Your task to perform on an android device: Search for "macbook pro 15 inch" on ebay.com, select the first entry, and add it to the cart. Image 0: 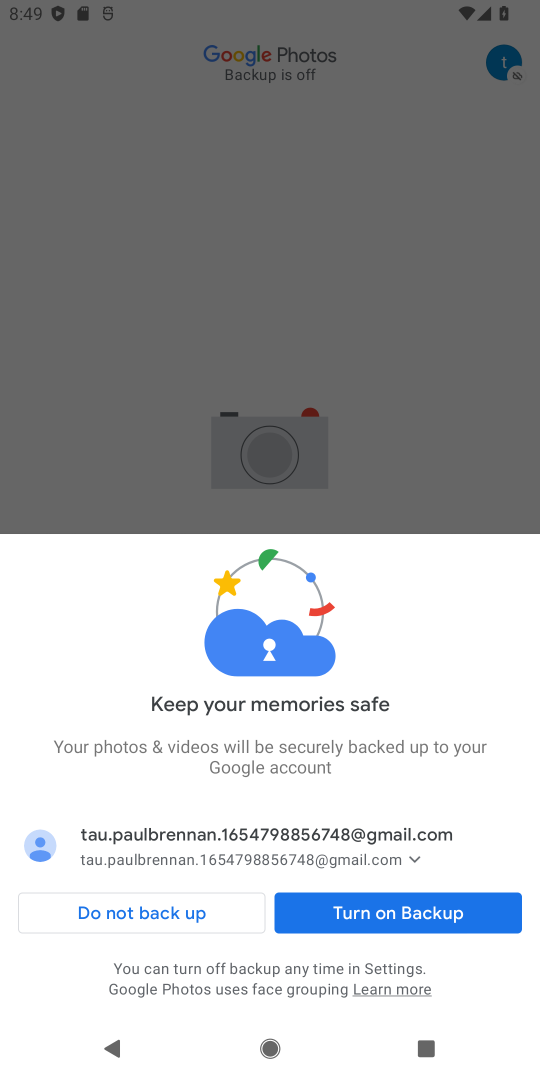
Step 0: click (178, 911)
Your task to perform on an android device: Search for "macbook pro 15 inch" on ebay.com, select the first entry, and add it to the cart. Image 1: 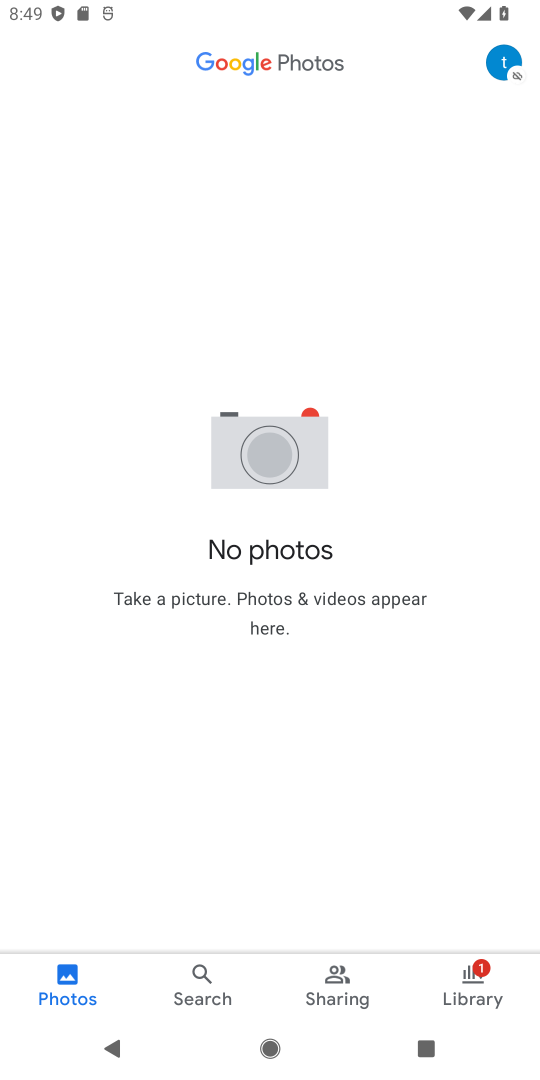
Step 1: press home button
Your task to perform on an android device: Search for "macbook pro 15 inch" on ebay.com, select the first entry, and add it to the cart. Image 2: 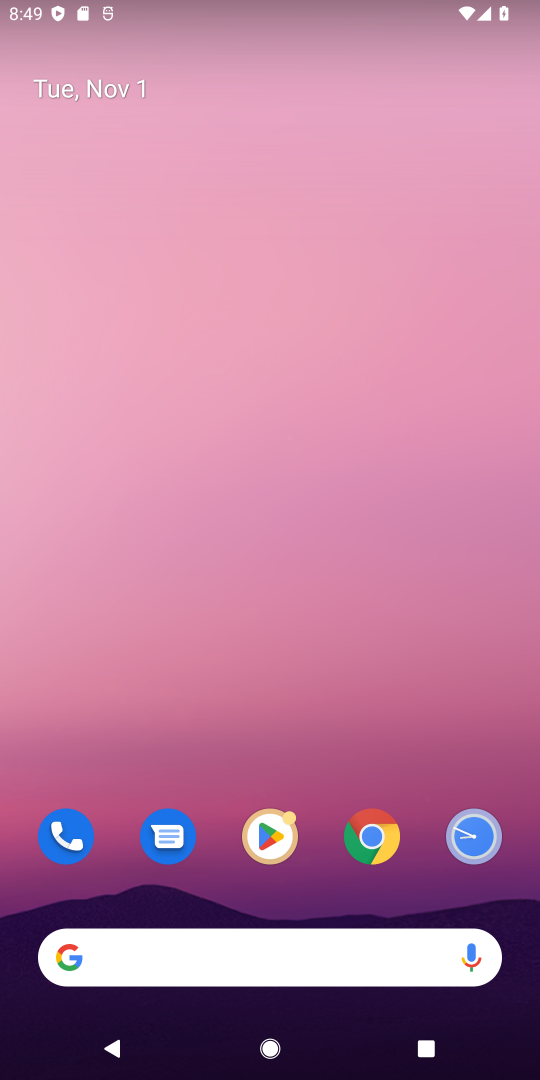
Step 2: click (371, 847)
Your task to perform on an android device: Search for "macbook pro 15 inch" on ebay.com, select the first entry, and add it to the cart. Image 3: 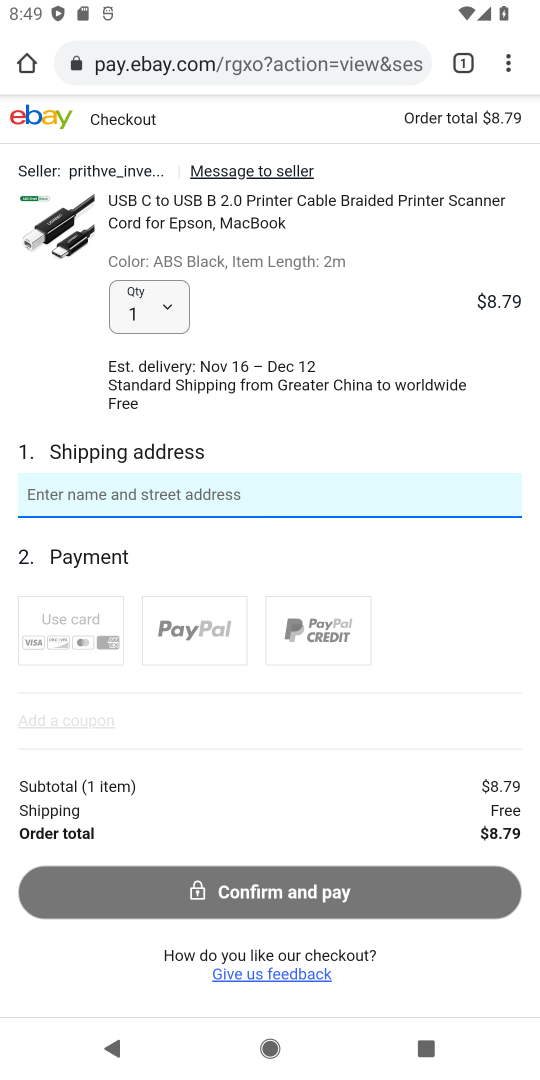
Step 3: click (189, 63)
Your task to perform on an android device: Search for "macbook pro 15 inch" on ebay.com, select the first entry, and add it to the cart. Image 4: 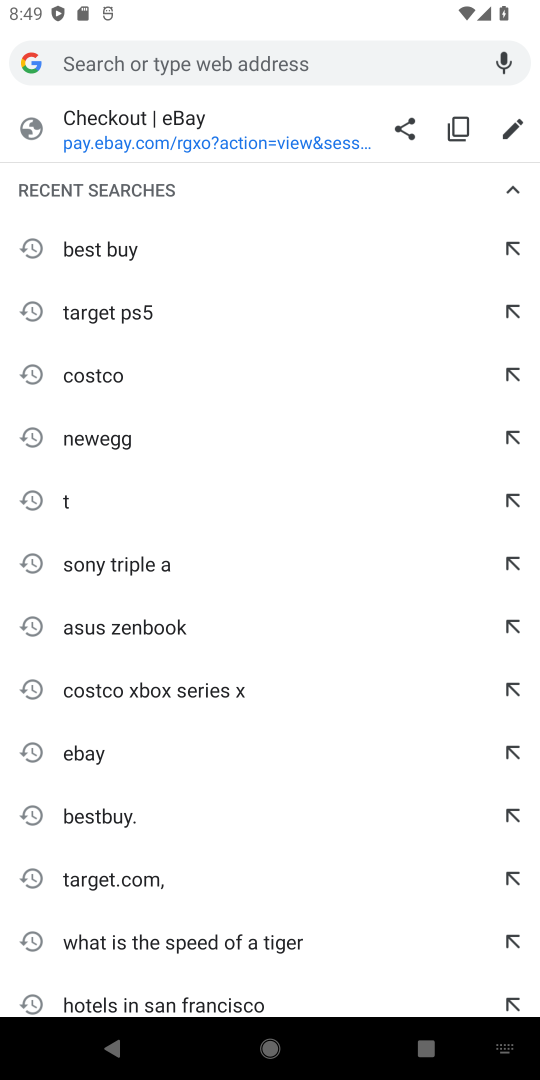
Step 4: type "ebay.com"
Your task to perform on an android device: Search for "macbook pro 15 inch" on ebay.com, select the first entry, and add it to the cart. Image 5: 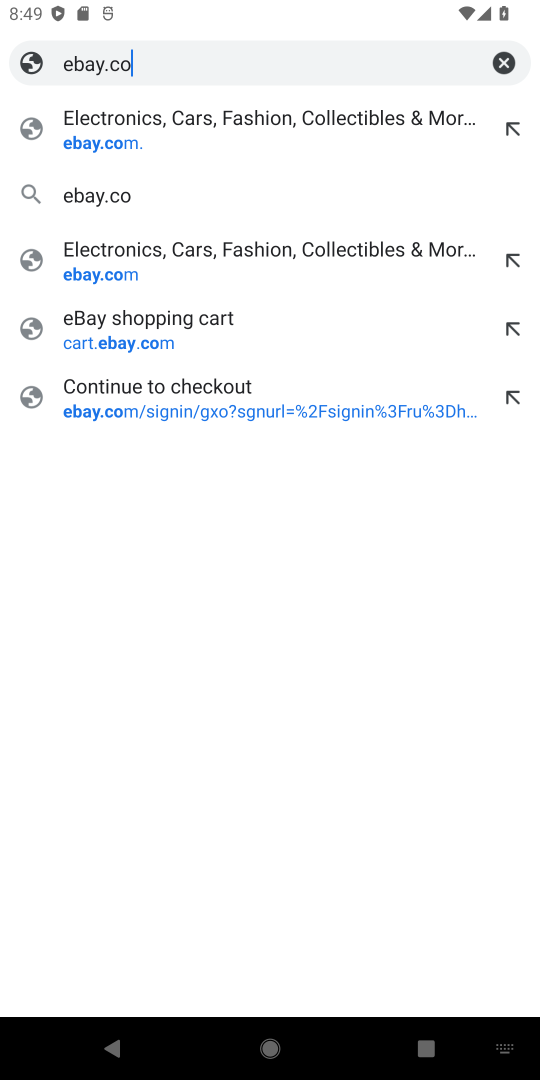
Step 5: type ""
Your task to perform on an android device: Search for "macbook pro 15 inch" on ebay.com, select the first entry, and add it to the cart. Image 6: 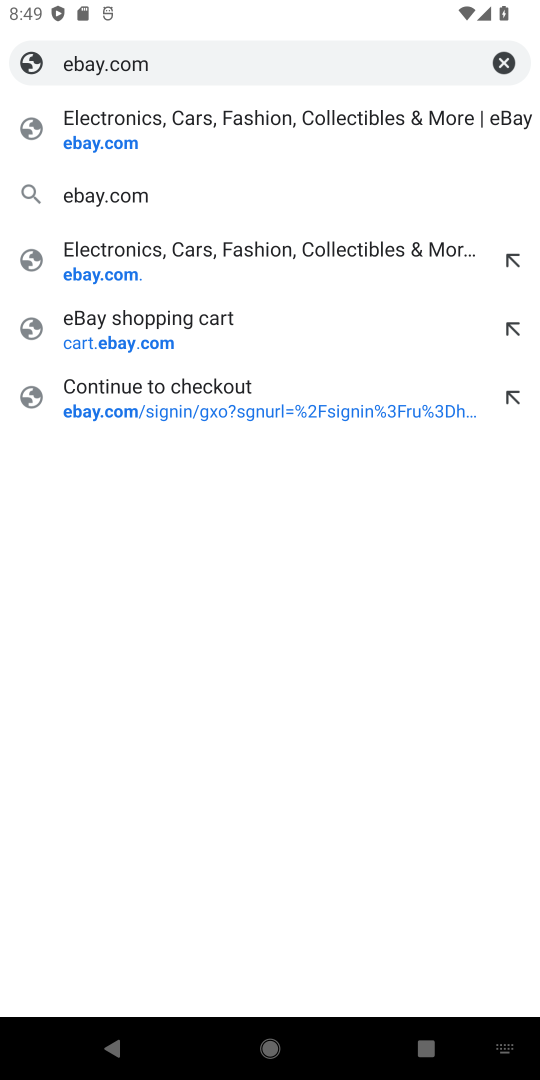
Step 6: click (266, 125)
Your task to perform on an android device: Search for "macbook pro 15 inch" on ebay.com, select the first entry, and add it to the cart. Image 7: 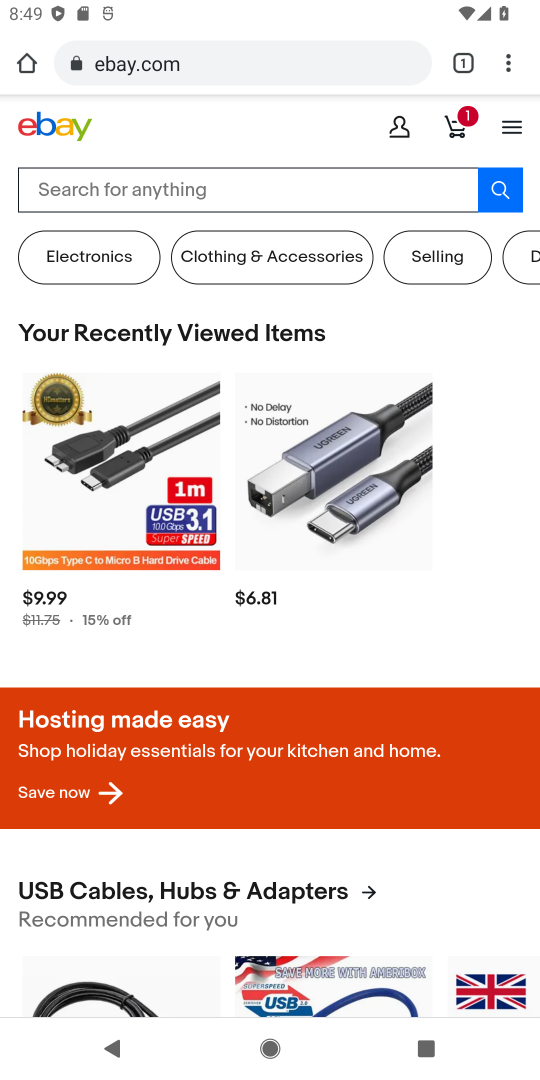
Step 7: click (241, 209)
Your task to perform on an android device: Search for "macbook pro 15 inch" on ebay.com, select the first entry, and add it to the cart. Image 8: 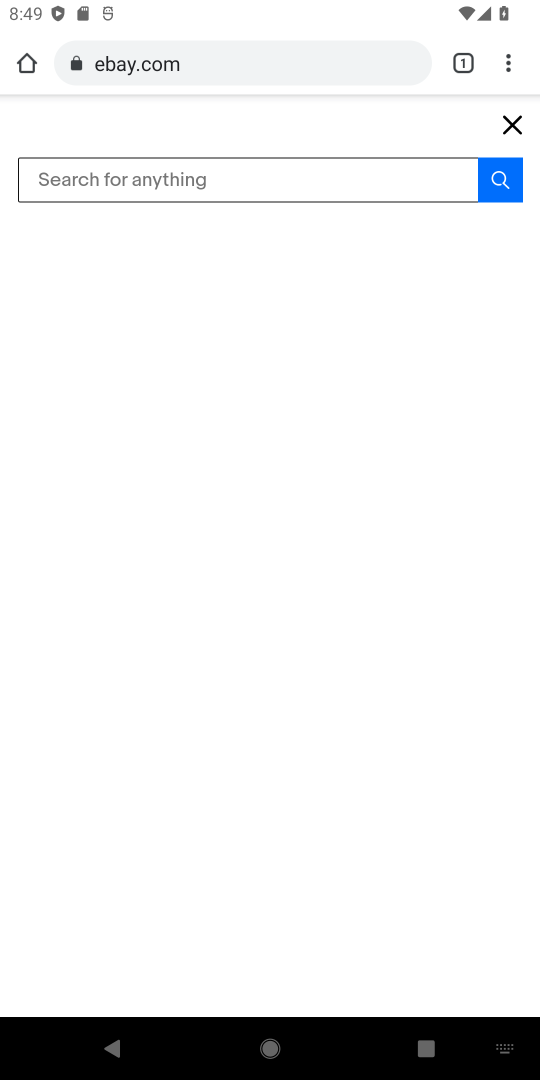
Step 8: type "macbook pro 15 inch"
Your task to perform on an android device: Search for "macbook pro 15 inch" on ebay.com, select the first entry, and add it to the cart. Image 9: 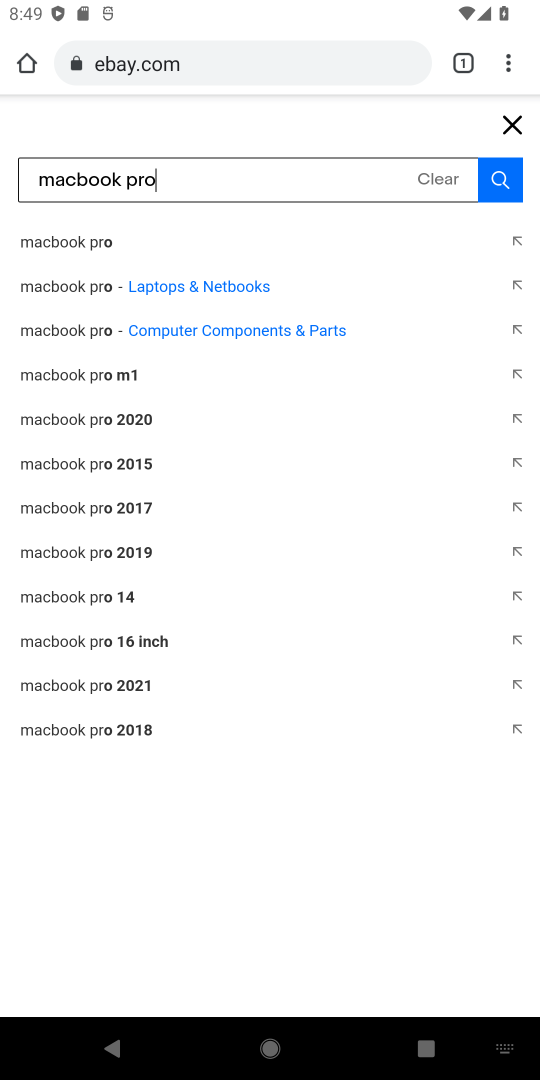
Step 9: type ""
Your task to perform on an android device: Search for "macbook pro 15 inch" on ebay.com, select the first entry, and add it to the cart. Image 10: 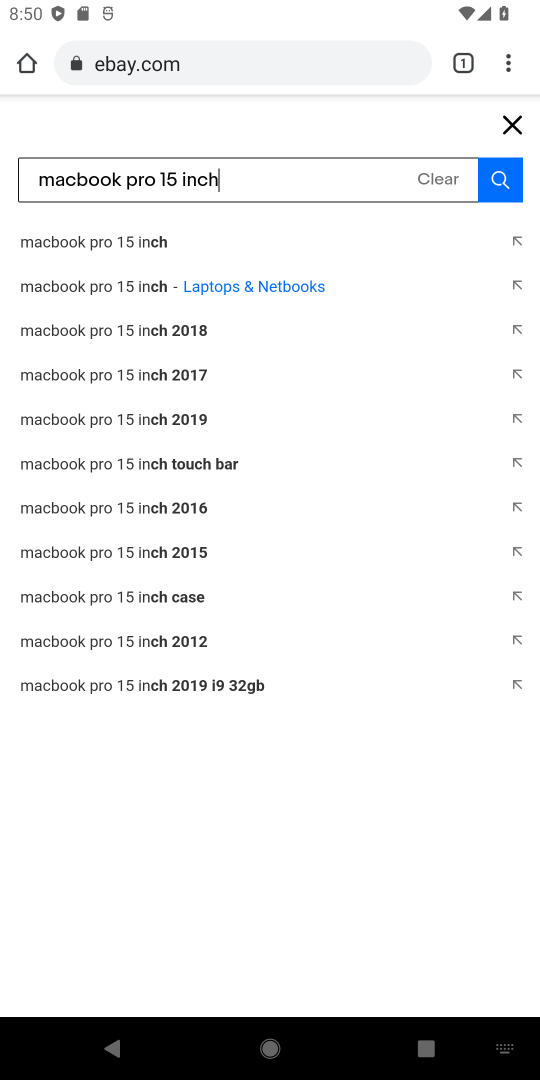
Step 10: click (173, 236)
Your task to perform on an android device: Search for "macbook pro 15 inch" on ebay.com, select the first entry, and add it to the cart. Image 11: 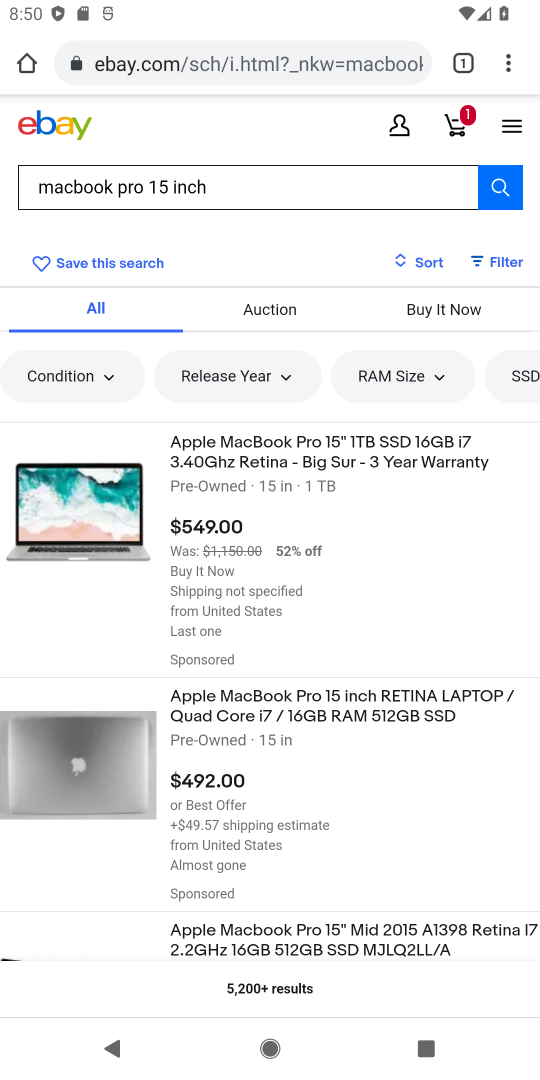
Step 11: click (230, 494)
Your task to perform on an android device: Search for "macbook pro 15 inch" on ebay.com, select the first entry, and add it to the cart. Image 12: 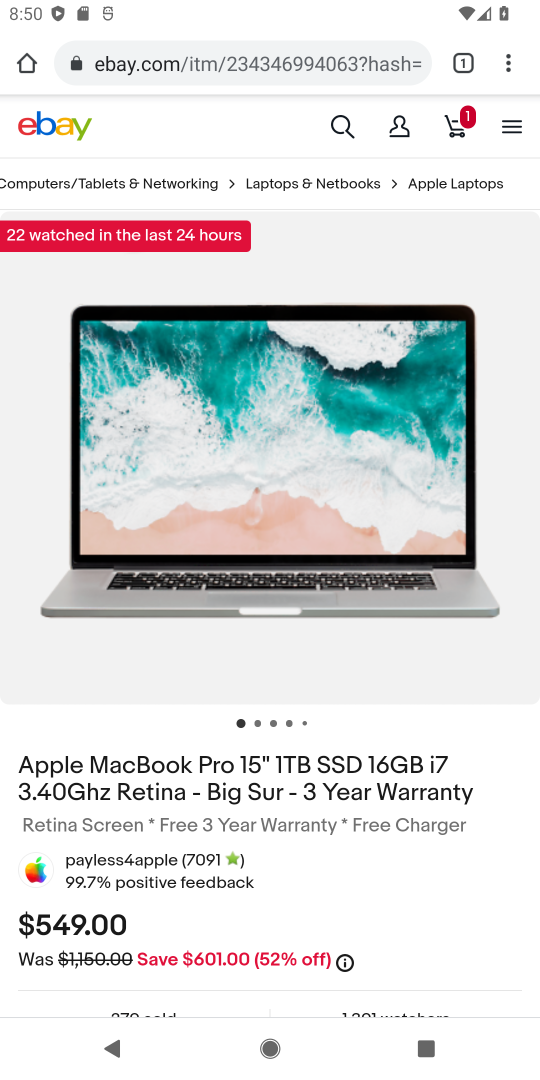
Step 12: drag from (218, 807) to (295, 445)
Your task to perform on an android device: Search for "macbook pro 15 inch" on ebay.com, select the first entry, and add it to the cart. Image 13: 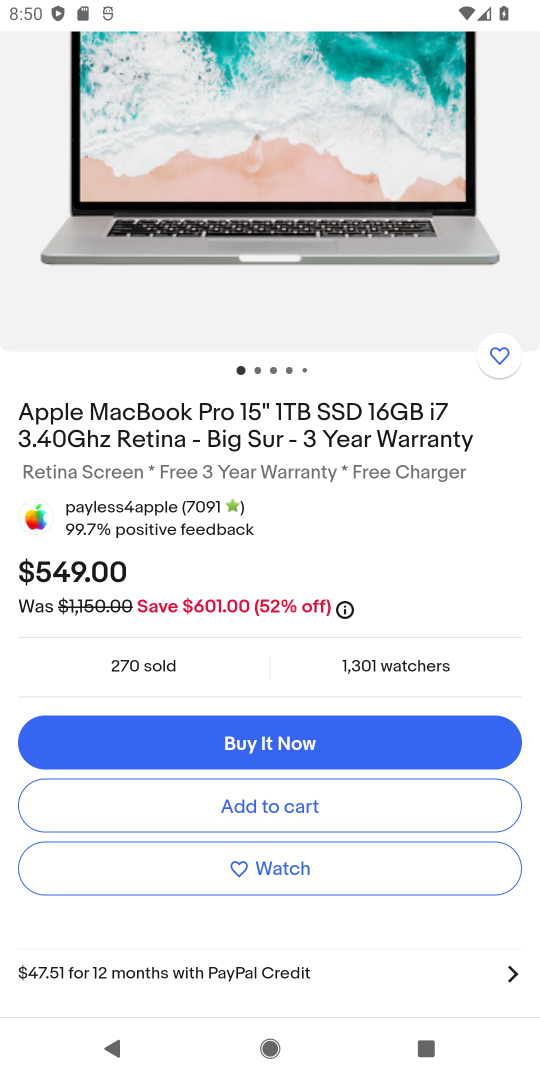
Step 13: click (276, 797)
Your task to perform on an android device: Search for "macbook pro 15 inch" on ebay.com, select the first entry, and add it to the cart. Image 14: 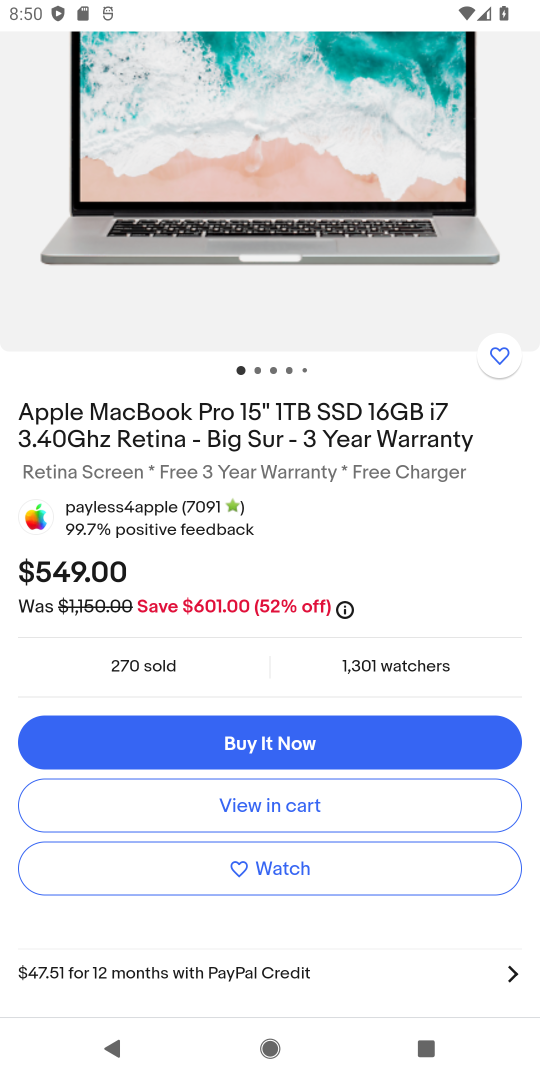
Step 14: click (276, 797)
Your task to perform on an android device: Search for "macbook pro 15 inch" on ebay.com, select the first entry, and add it to the cart. Image 15: 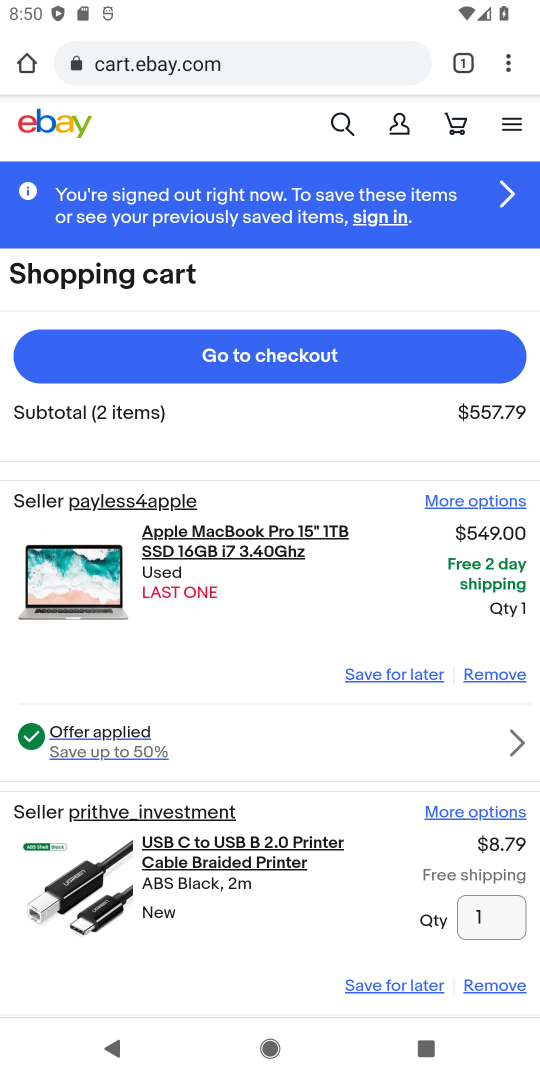
Step 15: drag from (290, 731) to (334, 440)
Your task to perform on an android device: Search for "macbook pro 15 inch" on ebay.com, select the first entry, and add it to the cart. Image 16: 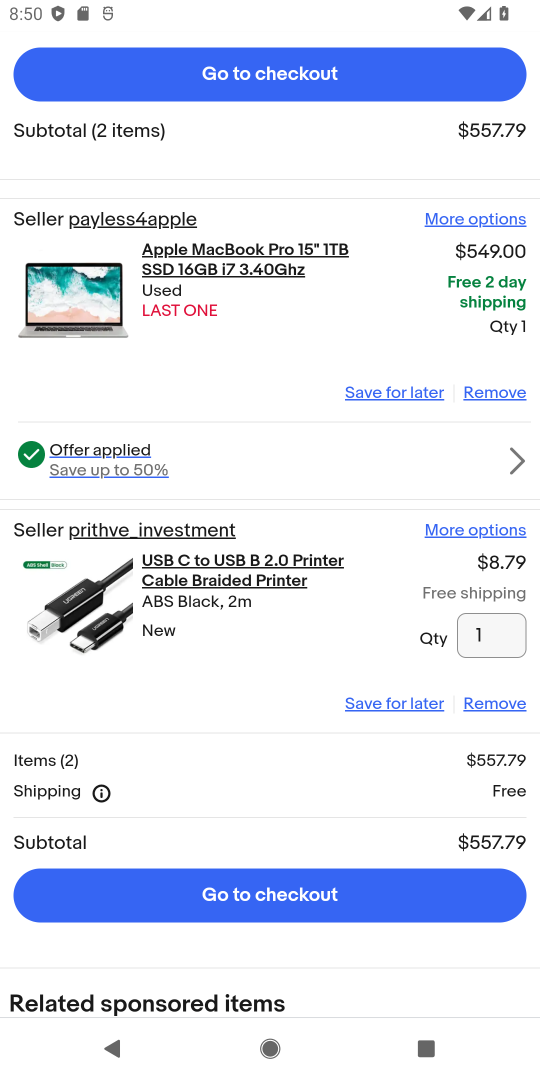
Step 16: click (505, 700)
Your task to perform on an android device: Search for "macbook pro 15 inch" on ebay.com, select the first entry, and add it to the cart. Image 17: 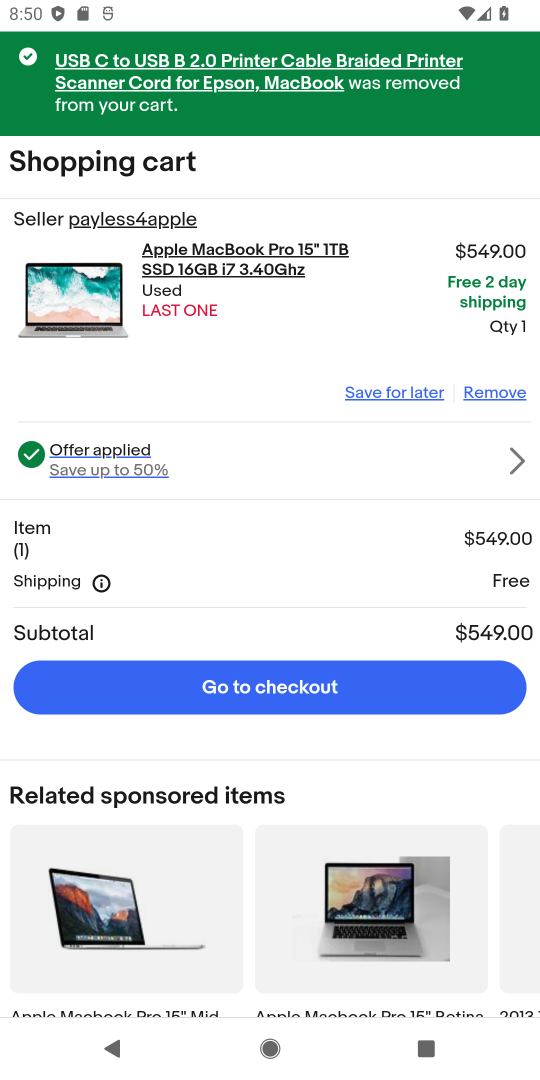
Step 17: click (453, 682)
Your task to perform on an android device: Search for "macbook pro 15 inch" on ebay.com, select the first entry, and add it to the cart. Image 18: 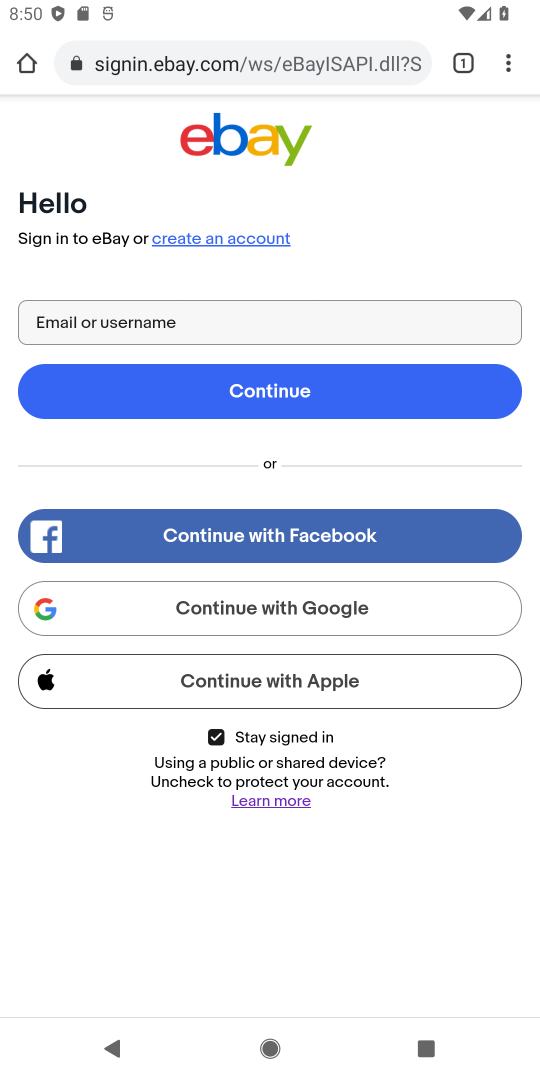
Step 18: click (453, 682)
Your task to perform on an android device: Search for "macbook pro 15 inch" on ebay.com, select the first entry, and add it to the cart. Image 19: 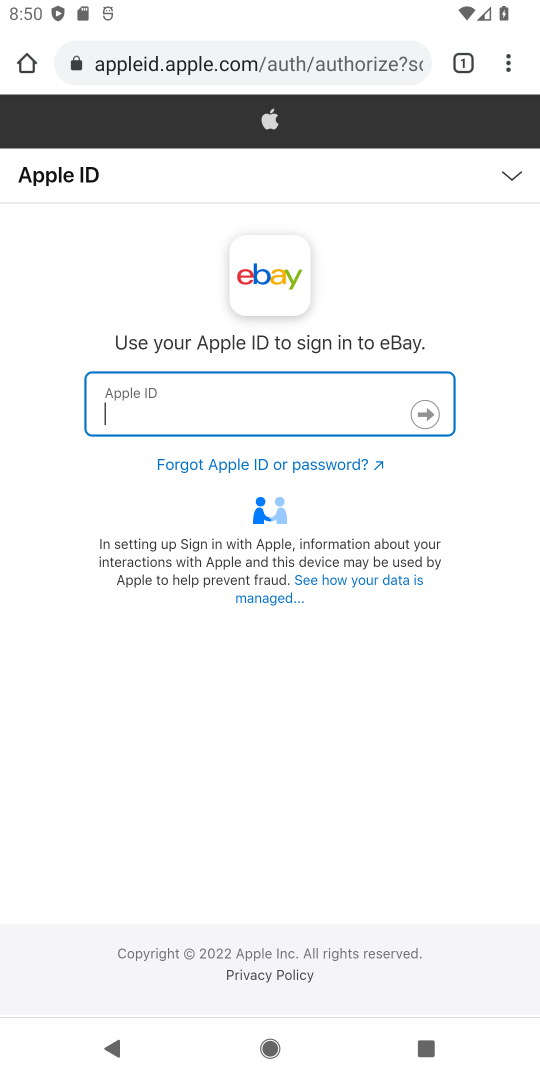
Step 19: click (525, 186)
Your task to perform on an android device: Search for "macbook pro 15 inch" on ebay.com, select the first entry, and add it to the cart. Image 20: 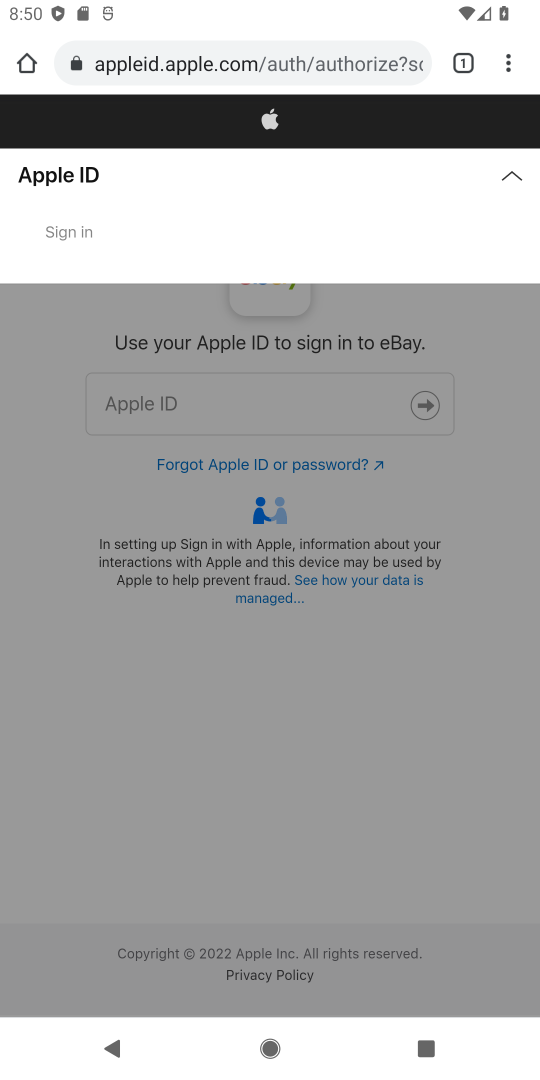
Step 20: click (262, 395)
Your task to perform on an android device: Search for "macbook pro 15 inch" on ebay.com, select the first entry, and add it to the cart. Image 21: 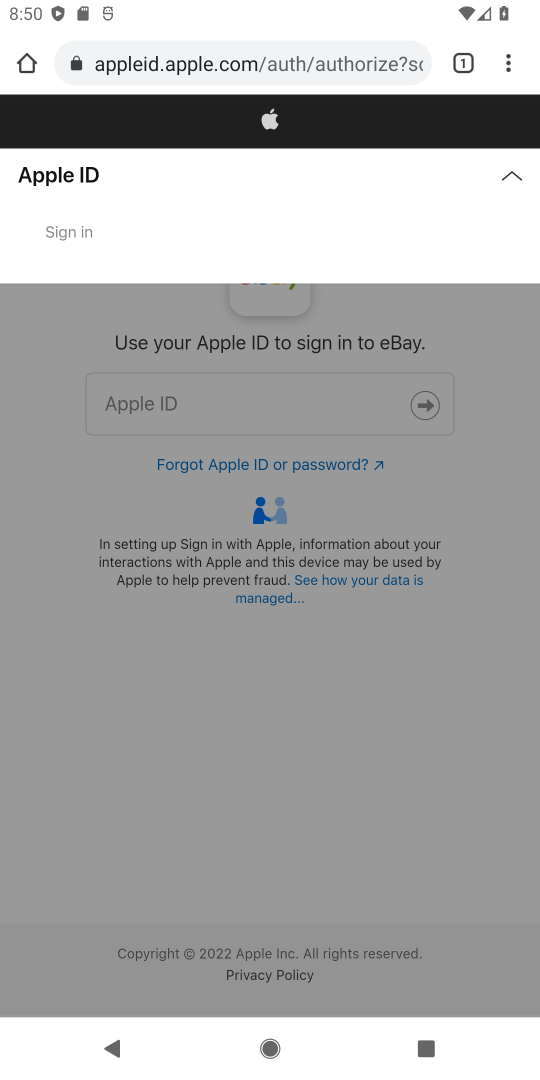
Step 21: click (262, 395)
Your task to perform on an android device: Search for "macbook pro 15 inch" on ebay.com, select the first entry, and add it to the cart. Image 22: 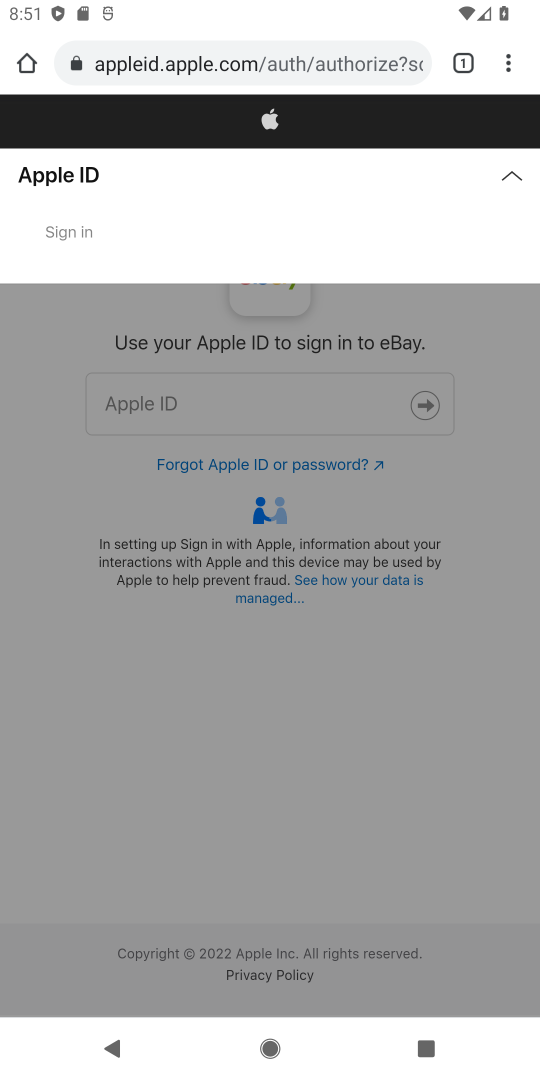
Step 22: click (517, 179)
Your task to perform on an android device: Search for "macbook pro 15 inch" on ebay.com, select the first entry, and add it to the cart. Image 23: 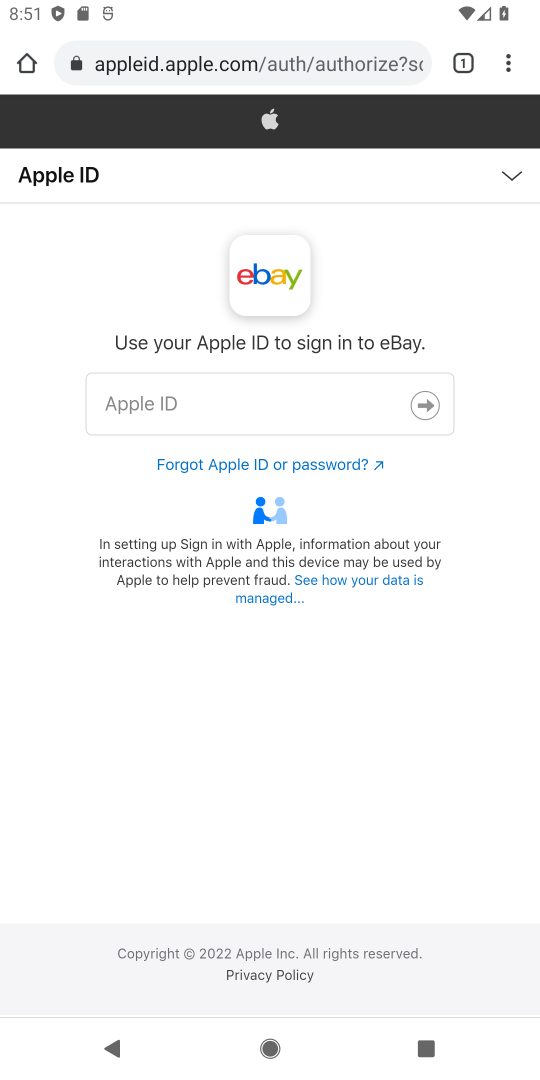
Step 23: click (277, 410)
Your task to perform on an android device: Search for "macbook pro 15 inch" on ebay.com, select the first entry, and add it to the cart. Image 24: 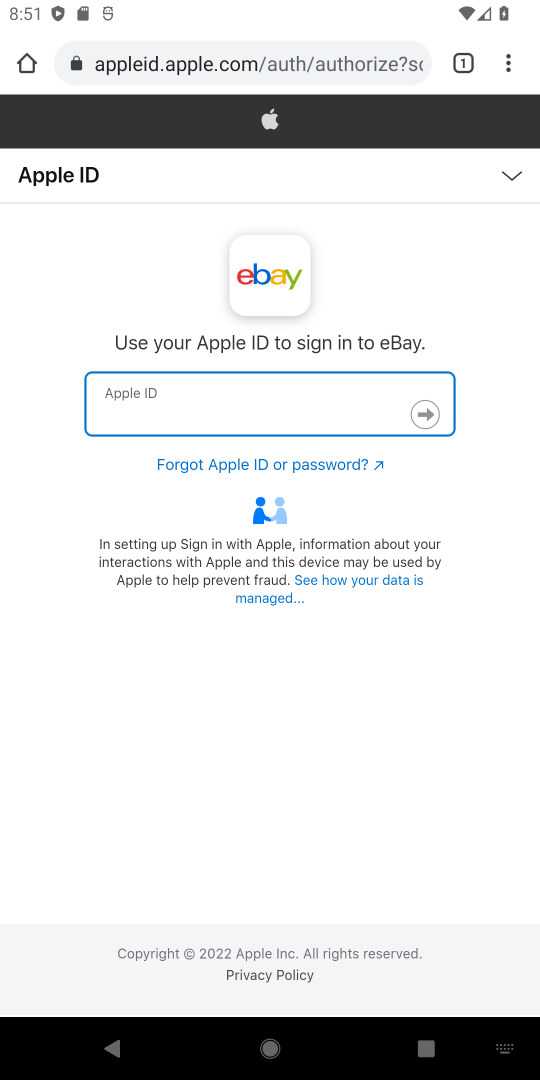
Step 24: task complete